Your task to perform on an android device: turn on javascript in the chrome app Image 0: 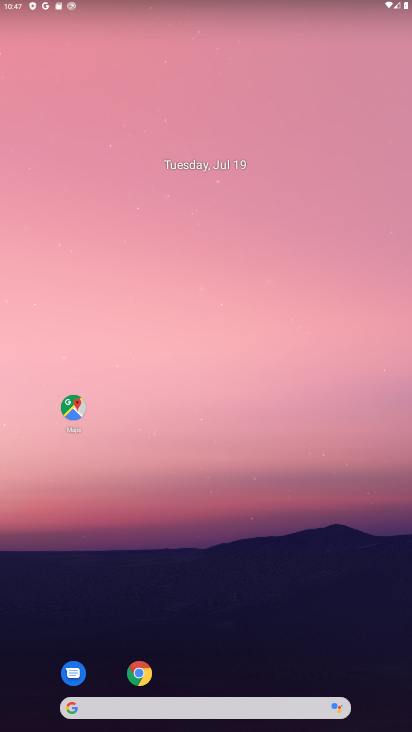
Step 0: click (139, 673)
Your task to perform on an android device: turn on javascript in the chrome app Image 1: 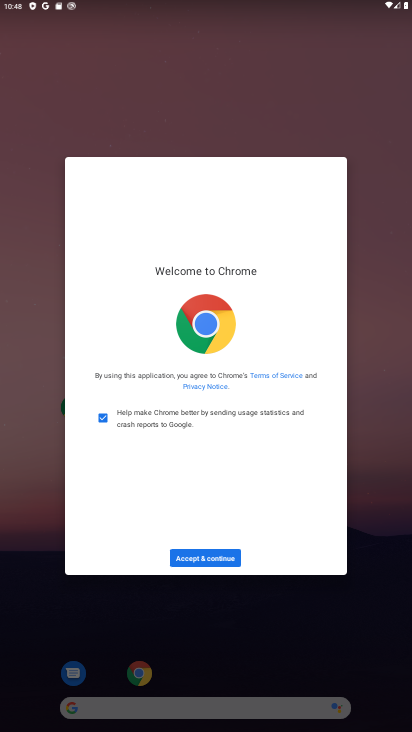
Step 1: click (213, 550)
Your task to perform on an android device: turn on javascript in the chrome app Image 2: 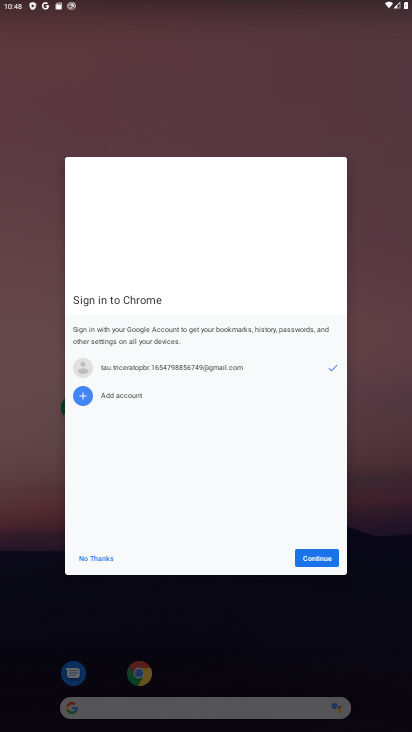
Step 2: click (310, 552)
Your task to perform on an android device: turn on javascript in the chrome app Image 3: 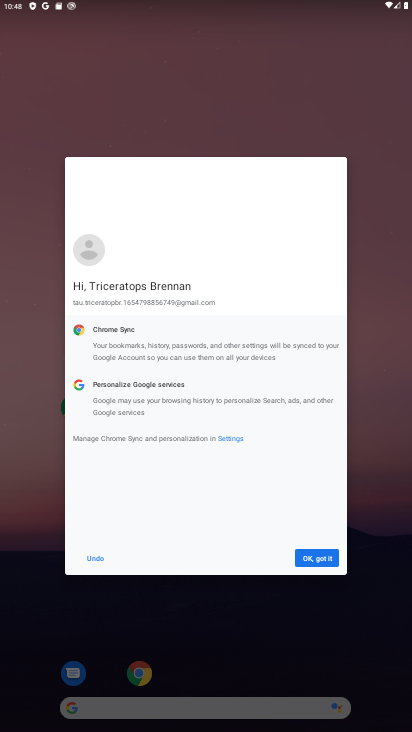
Step 3: click (314, 559)
Your task to perform on an android device: turn on javascript in the chrome app Image 4: 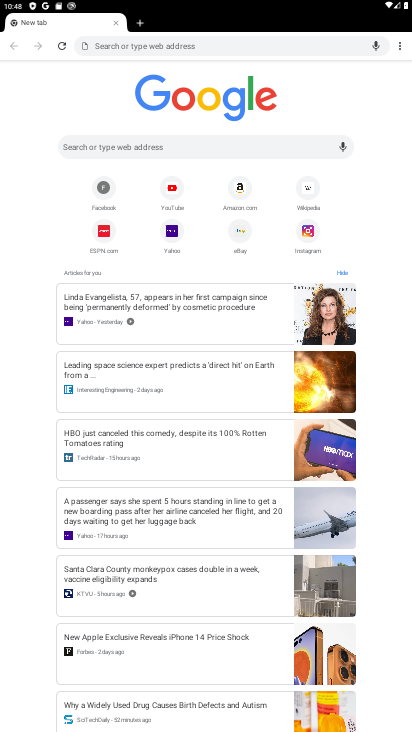
Step 4: click (401, 49)
Your task to perform on an android device: turn on javascript in the chrome app Image 5: 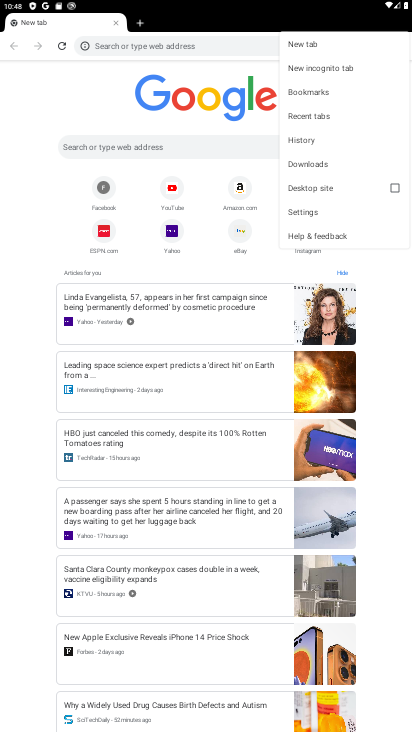
Step 5: click (310, 211)
Your task to perform on an android device: turn on javascript in the chrome app Image 6: 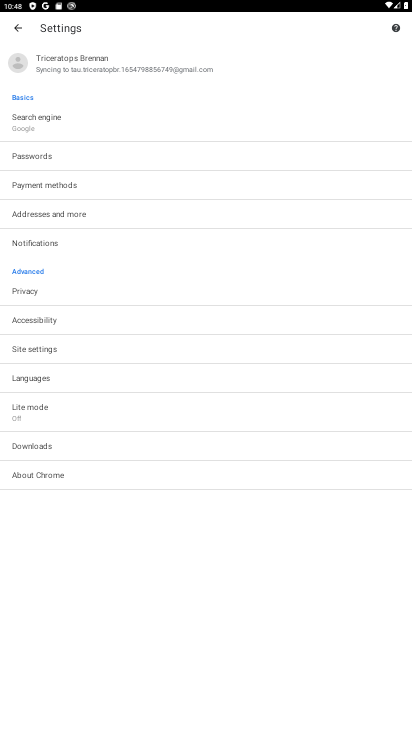
Step 6: click (39, 354)
Your task to perform on an android device: turn on javascript in the chrome app Image 7: 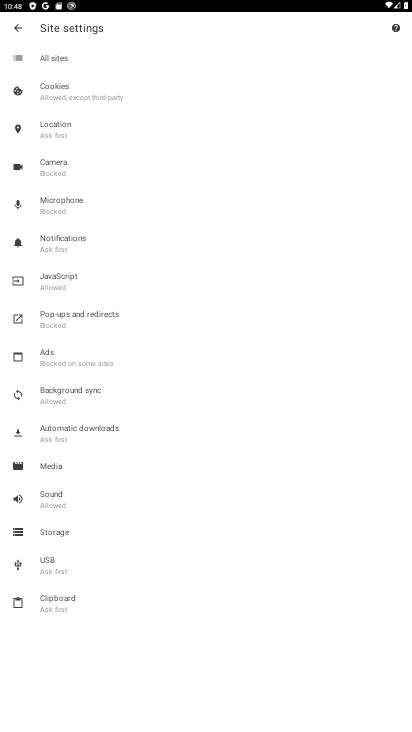
Step 7: click (54, 277)
Your task to perform on an android device: turn on javascript in the chrome app Image 8: 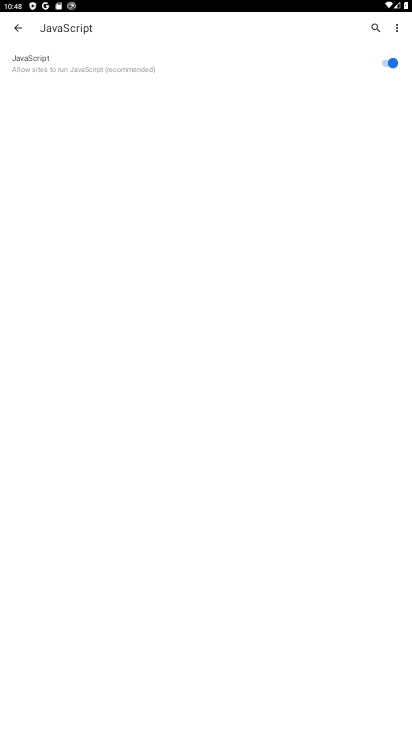
Step 8: task complete